Your task to perform on an android device: Go to notification settings Image 0: 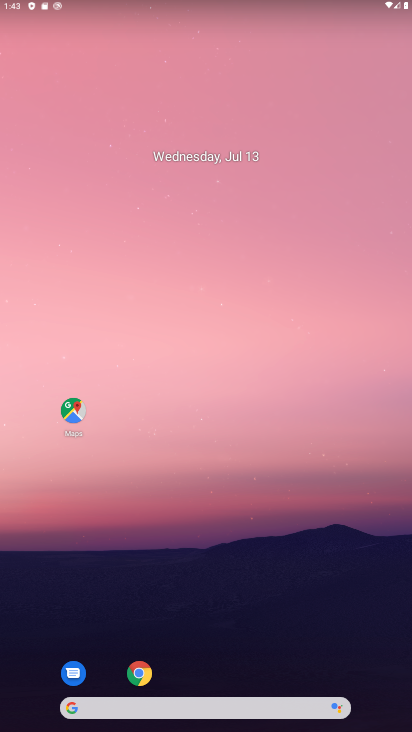
Step 0: drag from (274, 594) to (281, 52)
Your task to perform on an android device: Go to notification settings Image 1: 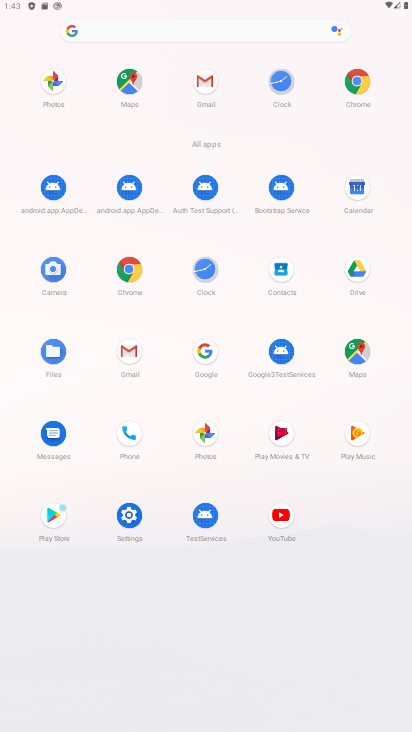
Step 1: click (130, 518)
Your task to perform on an android device: Go to notification settings Image 2: 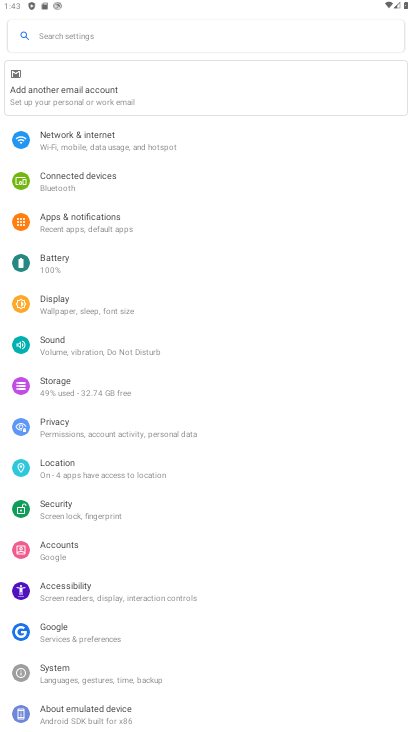
Step 2: click (86, 225)
Your task to perform on an android device: Go to notification settings Image 3: 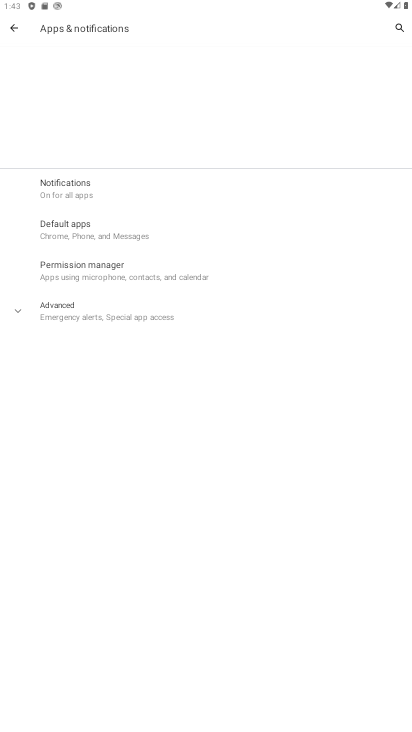
Step 3: click (72, 196)
Your task to perform on an android device: Go to notification settings Image 4: 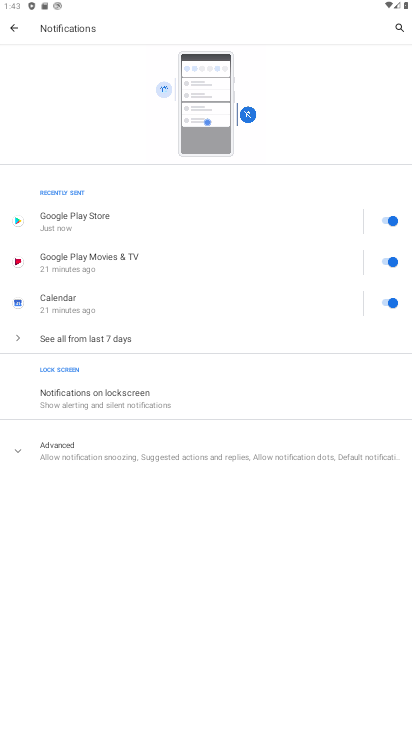
Step 4: task complete